Your task to perform on an android device: set an alarm Image 0: 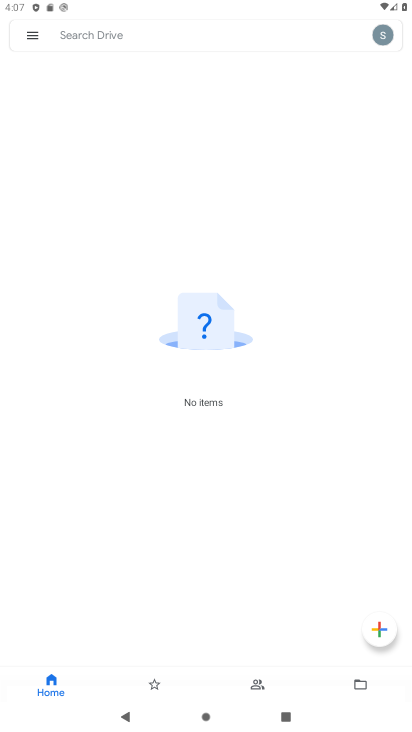
Step 0: press home button
Your task to perform on an android device: set an alarm Image 1: 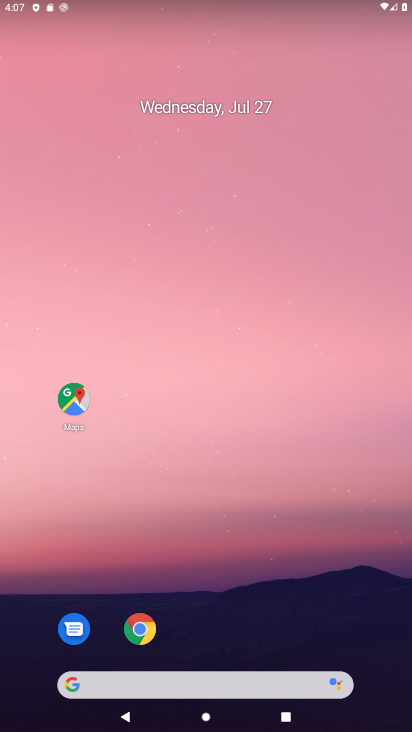
Step 1: drag from (203, 558) to (267, 1)
Your task to perform on an android device: set an alarm Image 2: 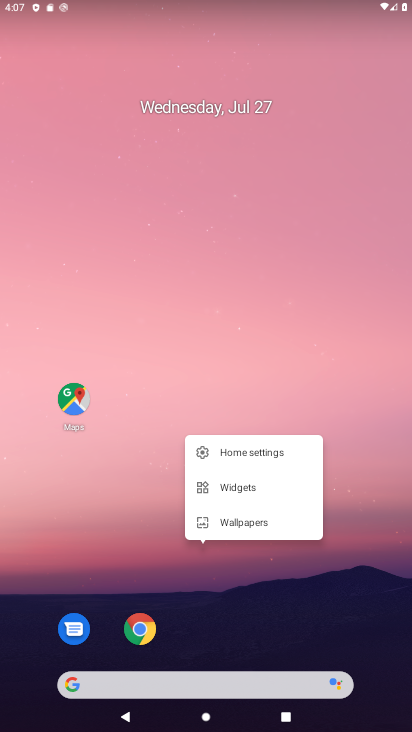
Step 2: click (373, 587)
Your task to perform on an android device: set an alarm Image 3: 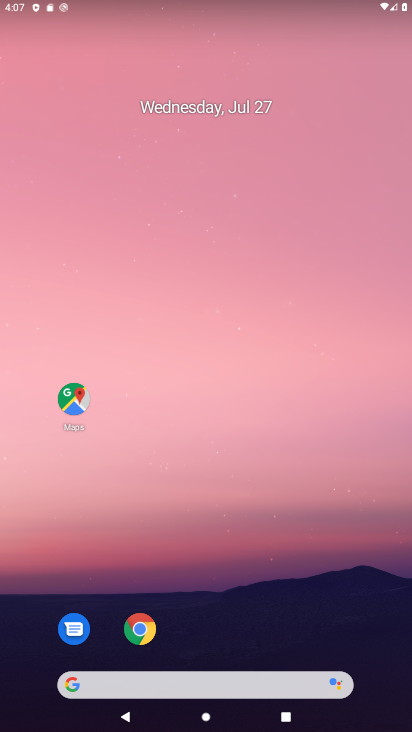
Step 3: drag from (311, 610) to (277, 21)
Your task to perform on an android device: set an alarm Image 4: 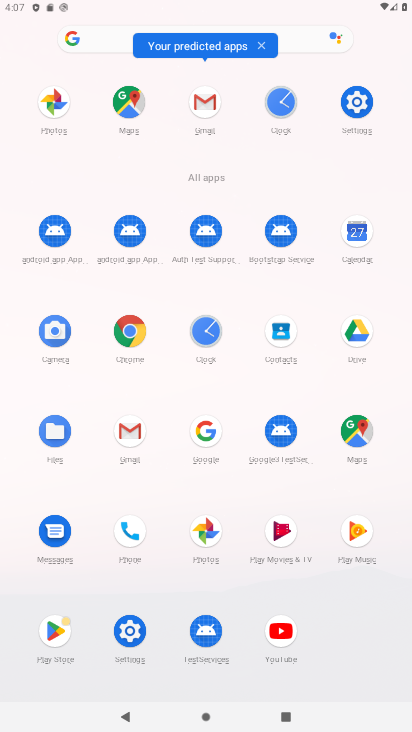
Step 4: click (218, 340)
Your task to perform on an android device: set an alarm Image 5: 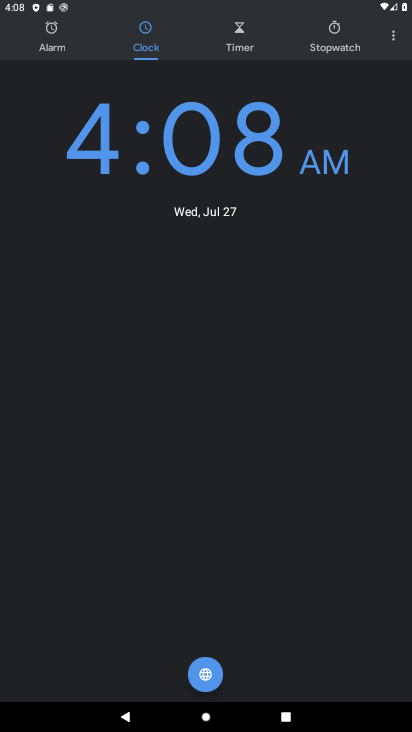
Step 5: click (42, 36)
Your task to perform on an android device: set an alarm Image 6: 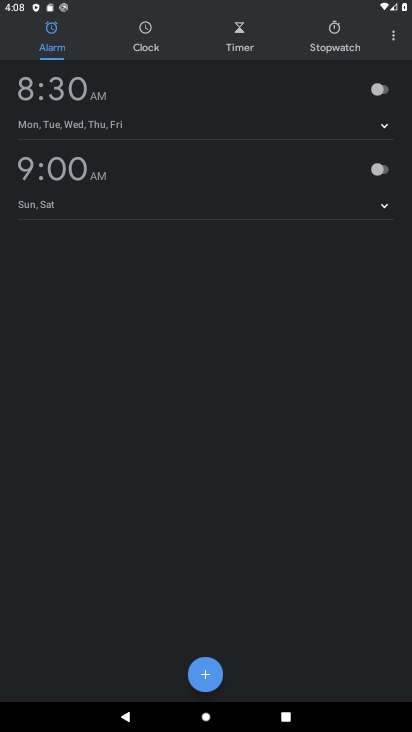
Step 6: click (374, 82)
Your task to perform on an android device: set an alarm Image 7: 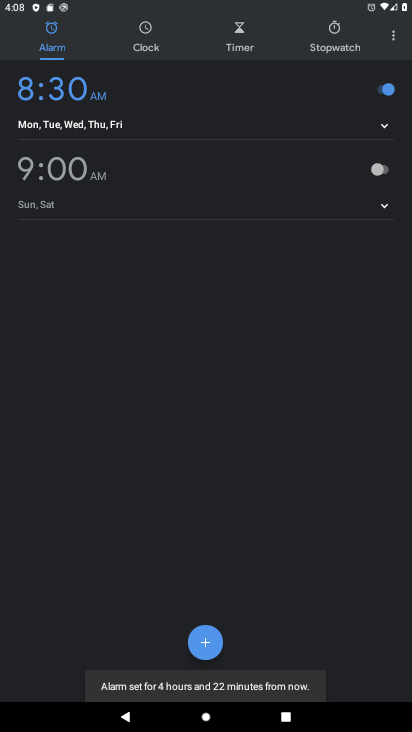
Step 7: task complete